Your task to perform on an android device: Show me recent news Image 0: 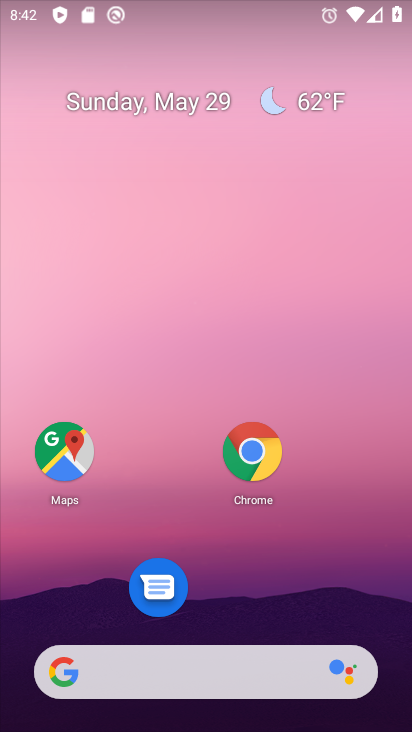
Step 0: click (164, 681)
Your task to perform on an android device: Show me recent news Image 1: 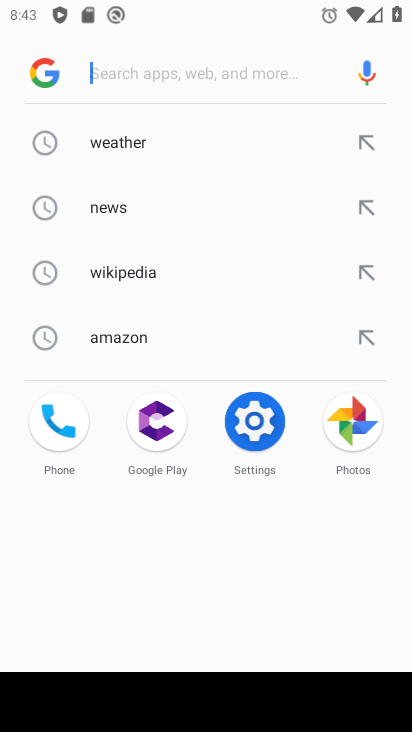
Step 1: click (135, 221)
Your task to perform on an android device: Show me recent news Image 2: 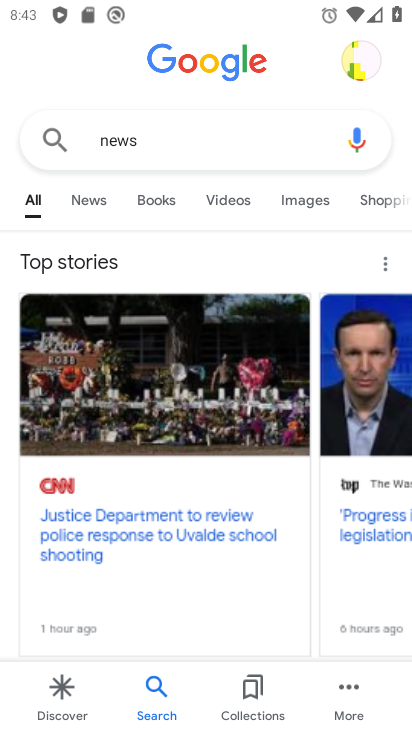
Step 2: task complete